Your task to perform on an android device: toggle javascript in the chrome app Image 0: 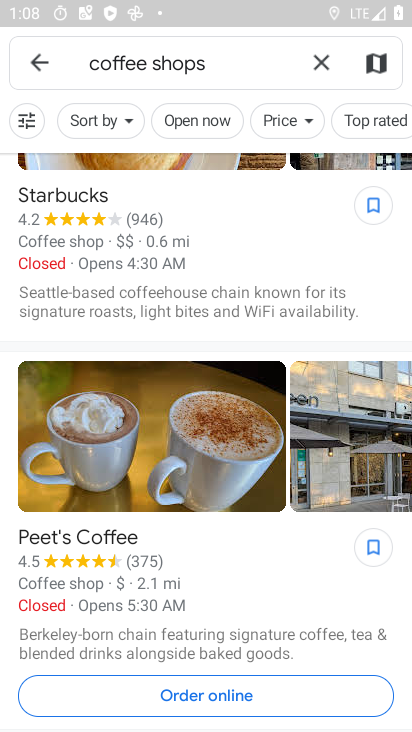
Step 0: press home button
Your task to perform on an android device: toggle javascript in the chrome app Image 1: 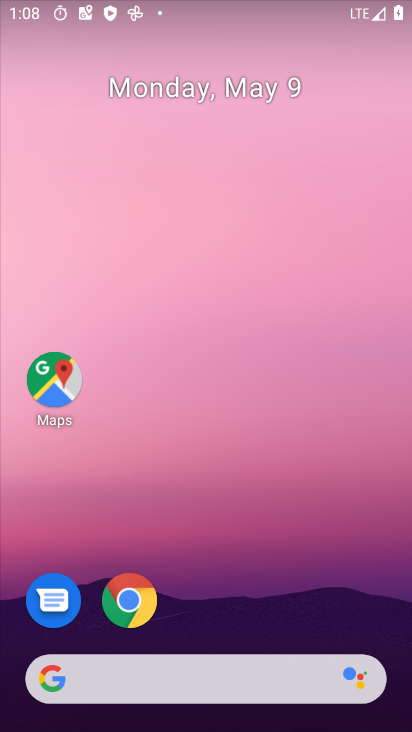
Step 1: drag from (289, 594) to (344, 43)
Your task to perform on an android device: toggle javascript in the chrome app Image 2: 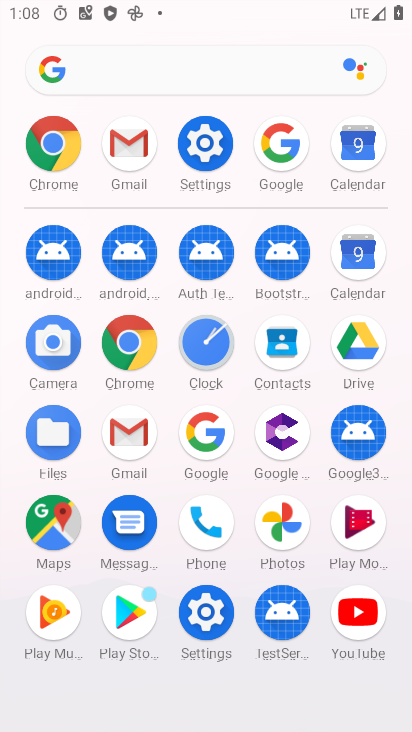
Step 2: click (134, 362)
Your task to perform on an android device: toggle javascript in the chrome app Image 3: 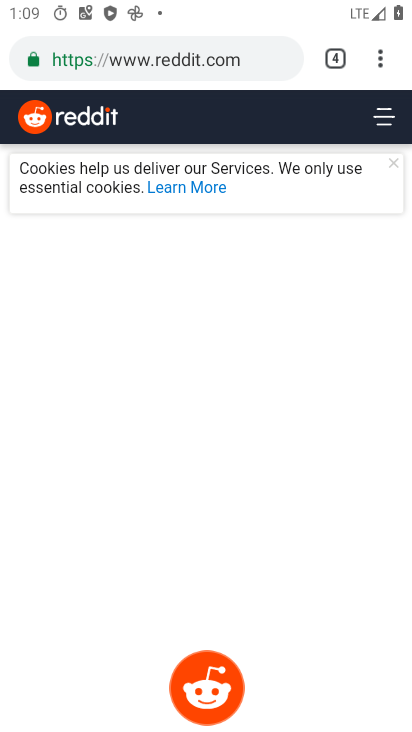
Step 3: click (381, 56)
Your task to perform on an android device: toggle javascript in the chrome app Image 4: 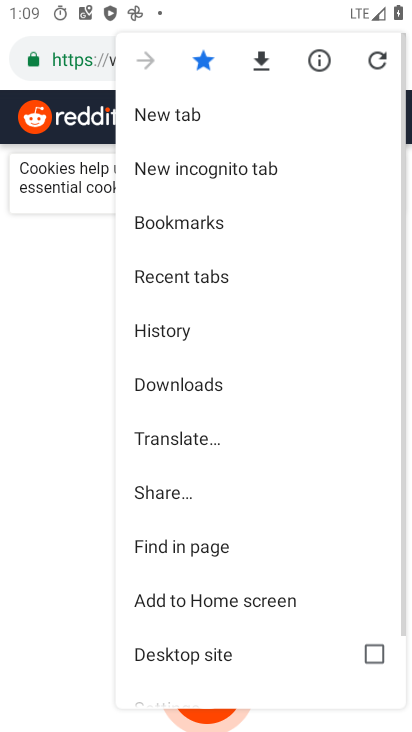
Step 4: drag from (199, 612) to (240, 372)
Your task to perform on an android device: toggle javascript in the chrome app Image 5: 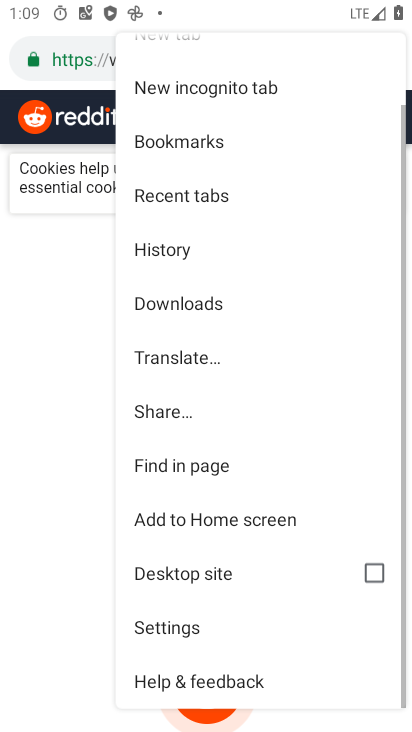
Step 5: click (217, 635)
Your task to perform on an android device: toggle javascript in the chrome app Image 6: 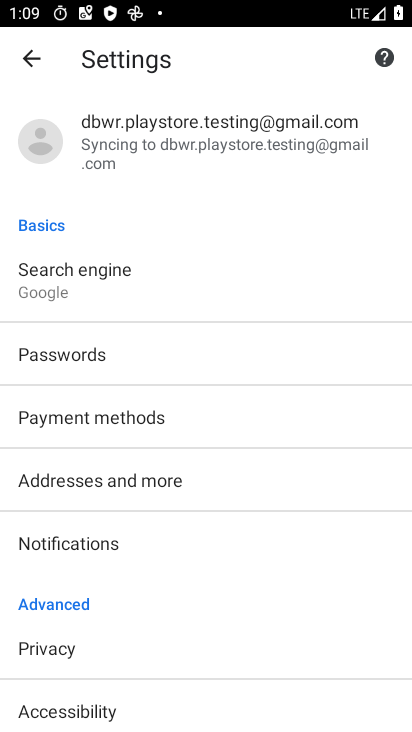
Step 6: drag from (150, 634) to (202, 298)
Your task to perform on an android device: toggle javascript in the chrome app Image 7: 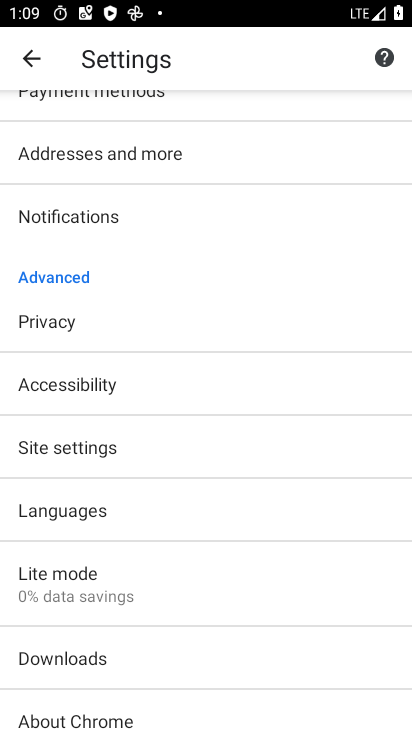
Step 7: drag from (167, 665) to (191, 512)
Your task to perform on an android device: toggle javascript in the chrome app Image 8: 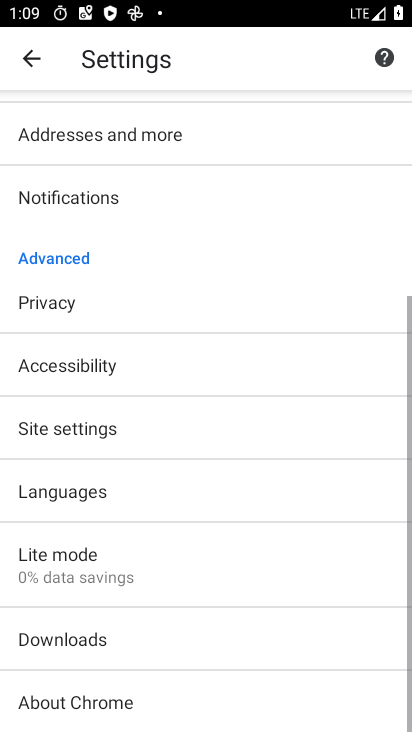
Step 8: click (156, 434)
Your task to perform on an android device: toggle javascript in the chrome app Image 9: 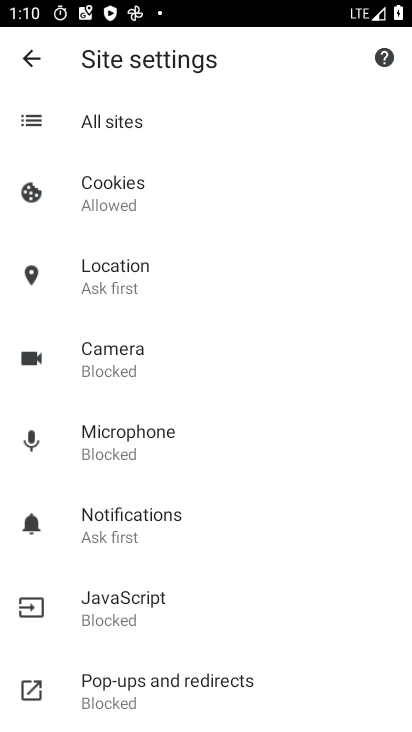
Step 9: click (197, 603)
Your task to perform on an android device: toggle javascript in the chrome app Image 10: 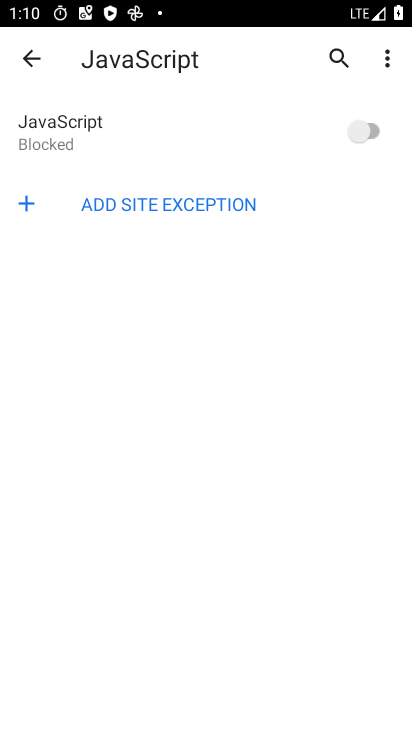
Step 10: click (347, 140)
Your task to perform on an android device: toggle javascript in the chrome app Image 11: 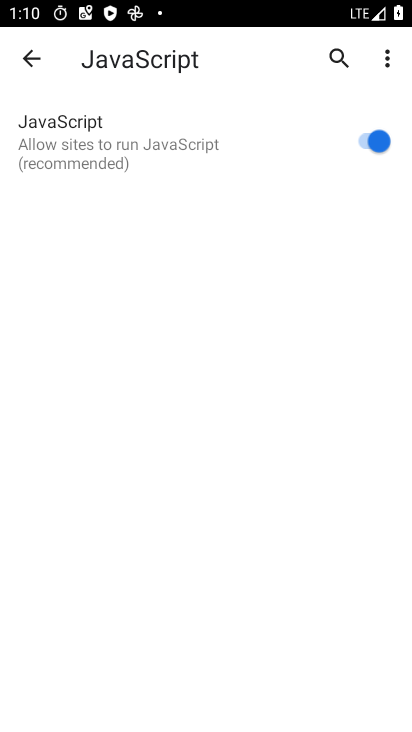
Step 11: task complete